Your task to perform on an android device: change the clock style Image 0: 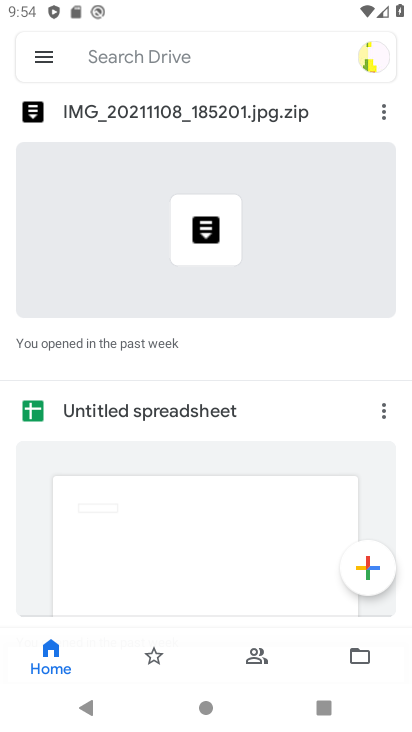
Step 0: press home button
Your task to perform on an android device: change the clock style Image 1: 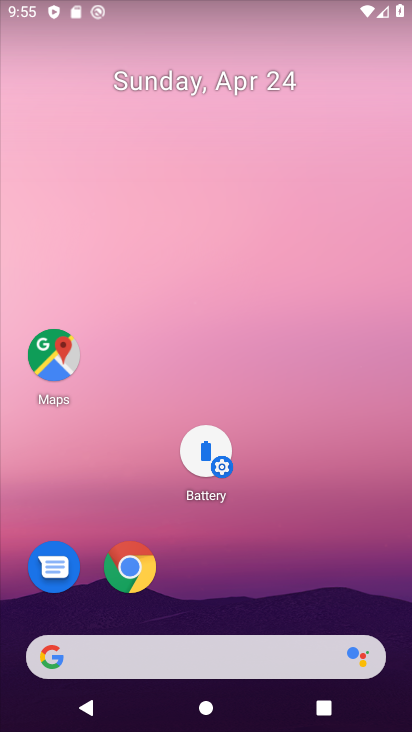
Step 1: drag from (72, 544) to (236, 284)
Your task to perform on an android device: change the clock style Image 2: 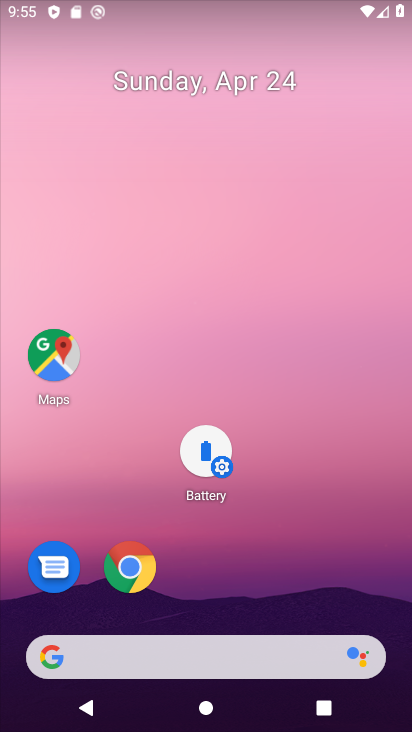
Step 2: drag from (30, 654) to (235, 146)
Your task to perform on an android device: change the clock style Image 3: 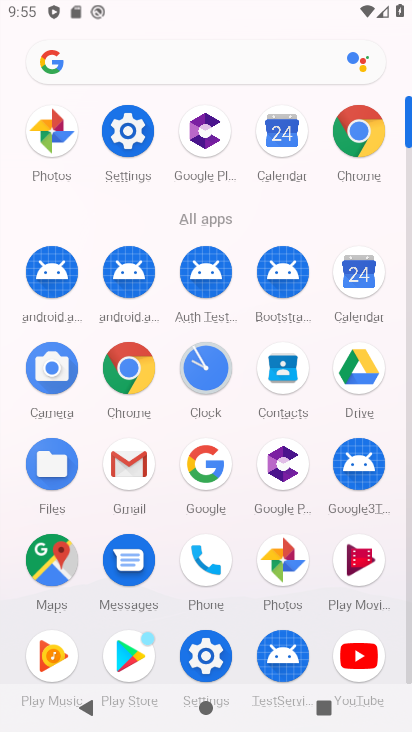
Step 3: click (195, 365)
Your task to perform on an android device: change the clock style Image 4: 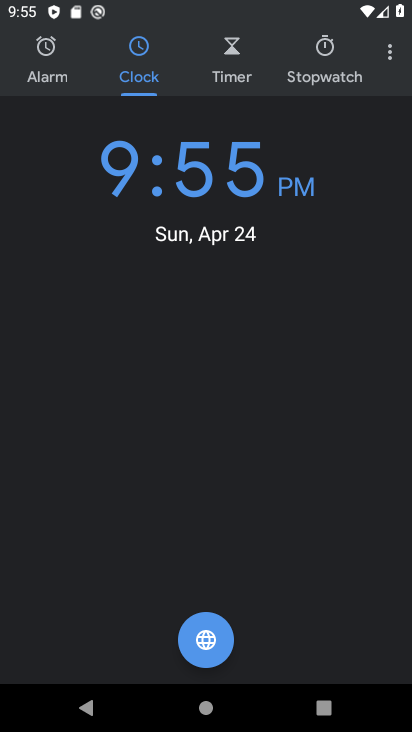
Step 4: click (391, 66)
Your task to perform on an android device: change the clock style Image 5: 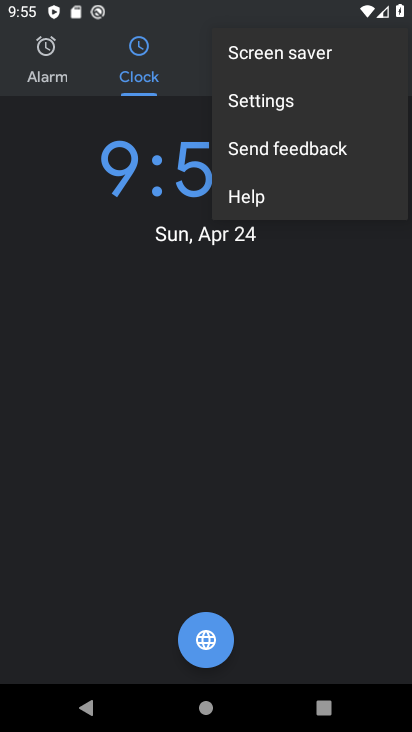
Step 5: click (325, 103)
Your task to perform on an android device: change the clock style Image 6: 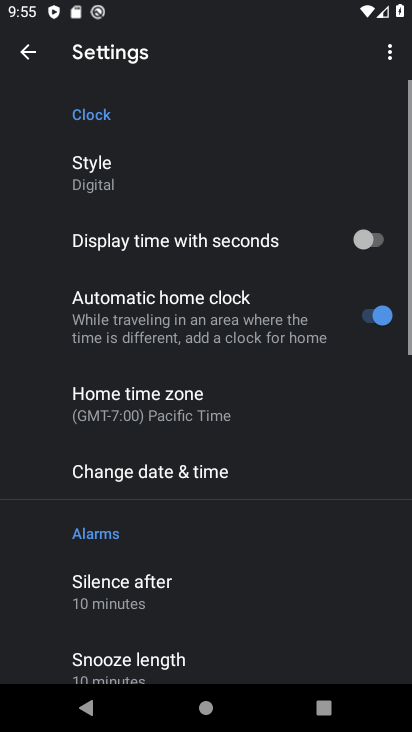
Step 6: click (228, 172)
Your task to perform on an android device: change the clock style Image 7: 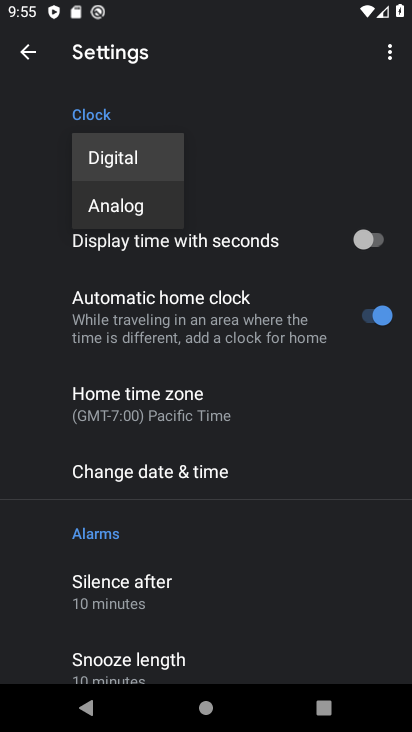
Step 7: click (135, 201)
Your task to perform on an android device: change the clock style Image 8: 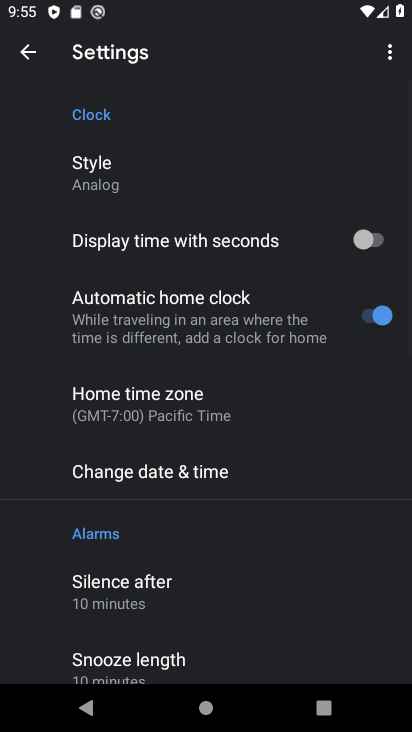
Step 8: task complete